Your task to perform on an android device: open app "Move to iOS" Image 0: 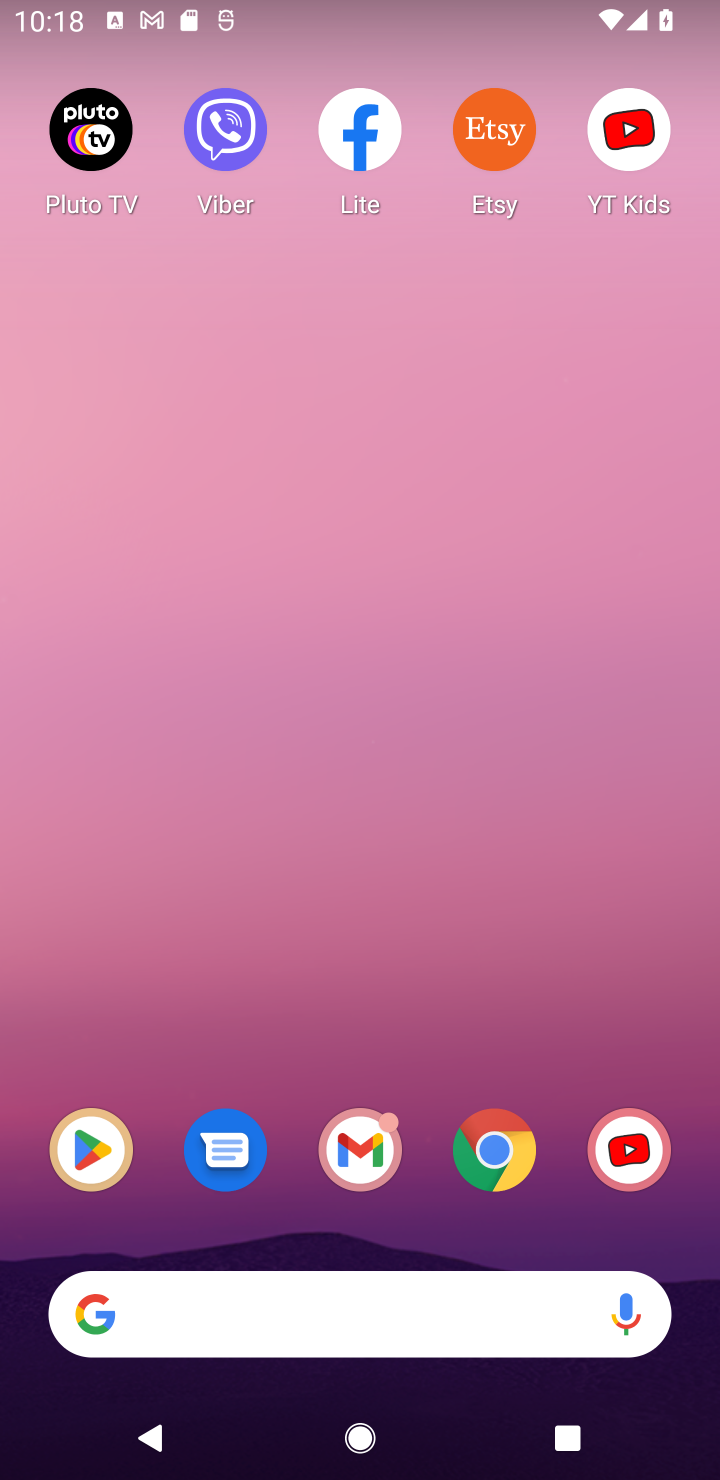
Step 0: drag from (295, 785) to (308, 265)
Your task to perform on an android device: open app "Move to iOS" Image 1: 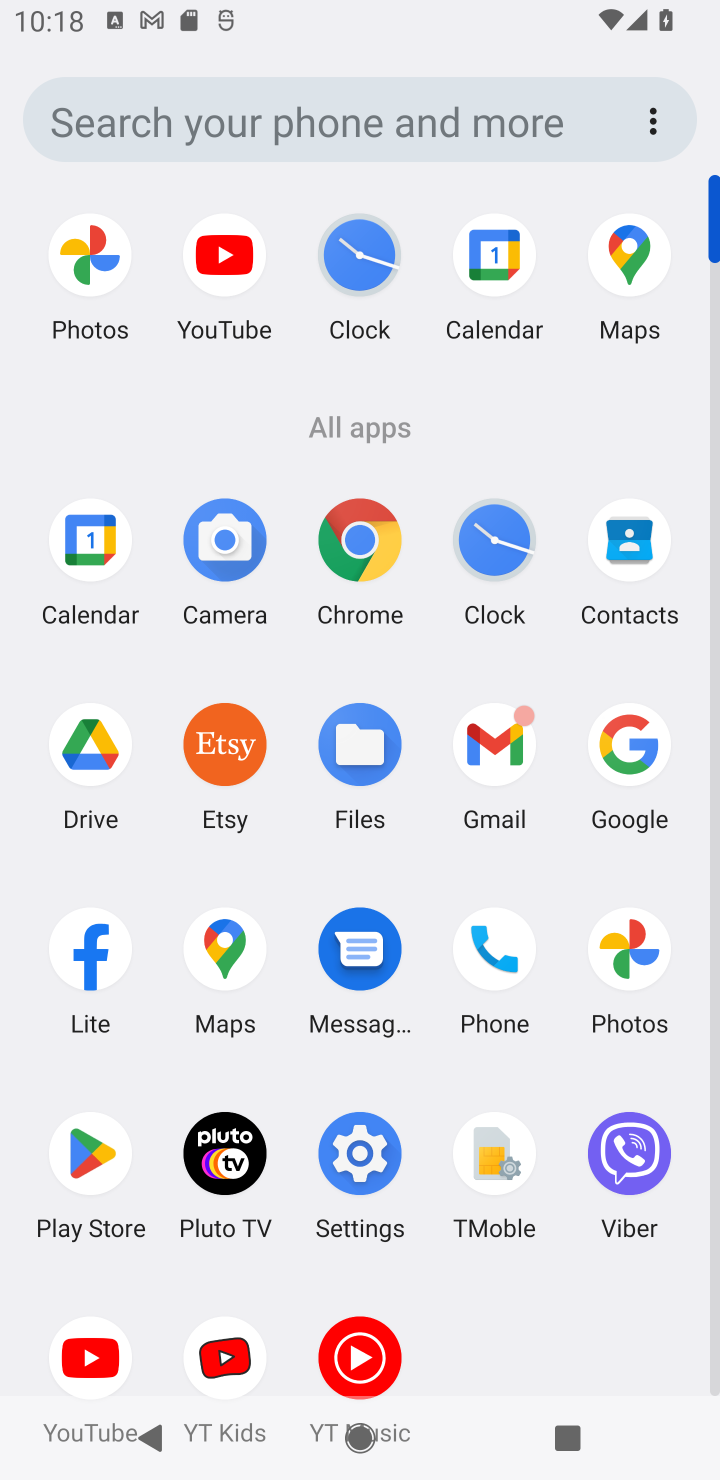
Step 1: click (99, 1164)
Your task to perform on an android device: open app "Move to iOS" Image 2: 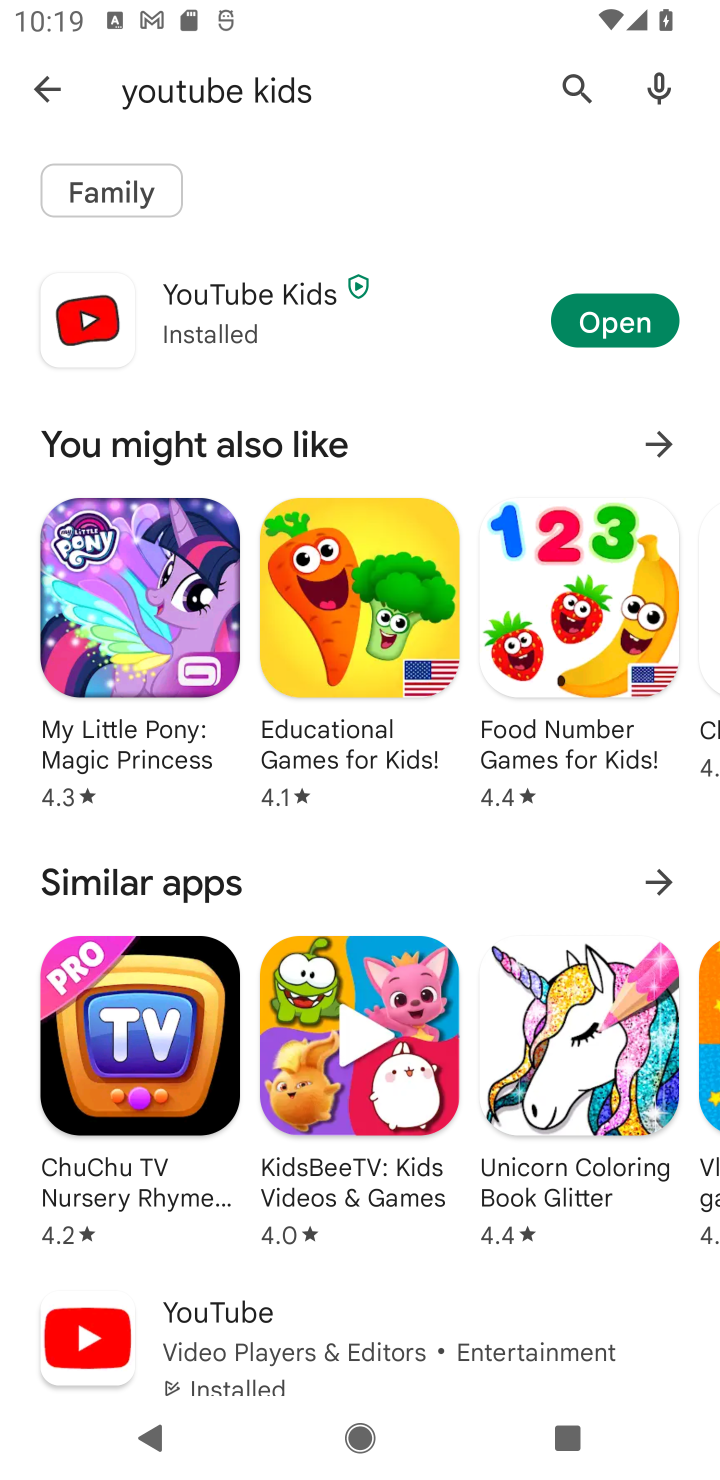
Step 2: click (595, 84)
Your task to perform on an android device: open app "Move to iOS" Image 3: 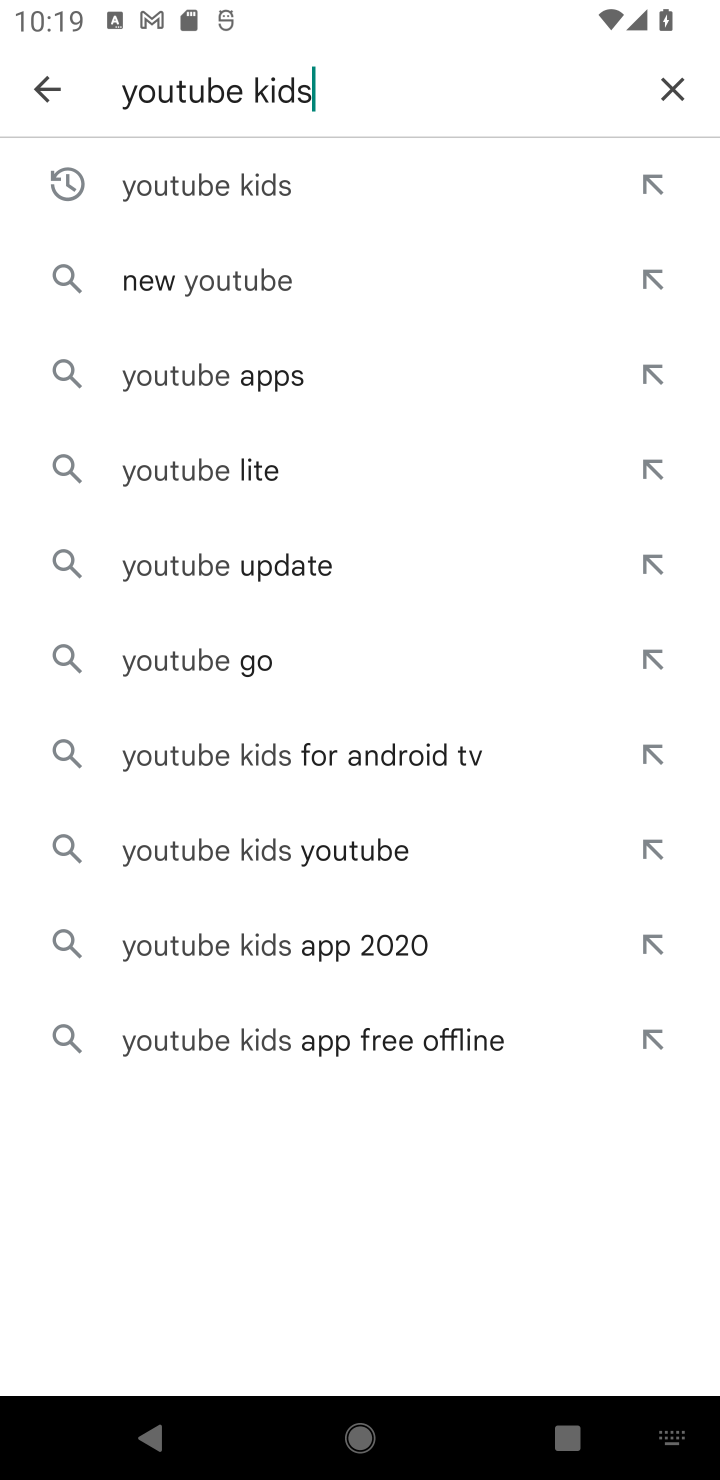
Step 3: click (656, 85)
Your task to perform on an android device: open app "Move to iOS" Image 4: 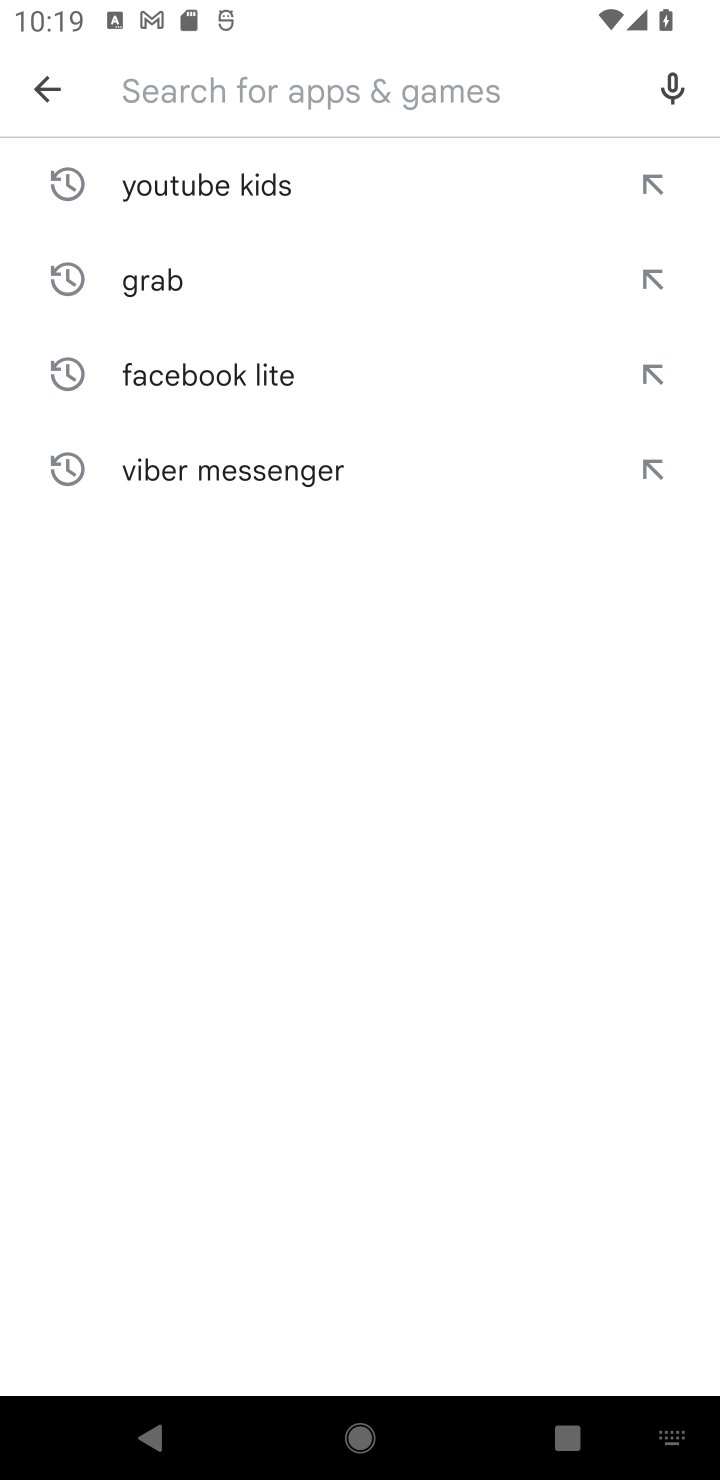
Step 4: type "Move to iOS"
Your task to perform on an android device: open app "Move to iOS" Image 5: 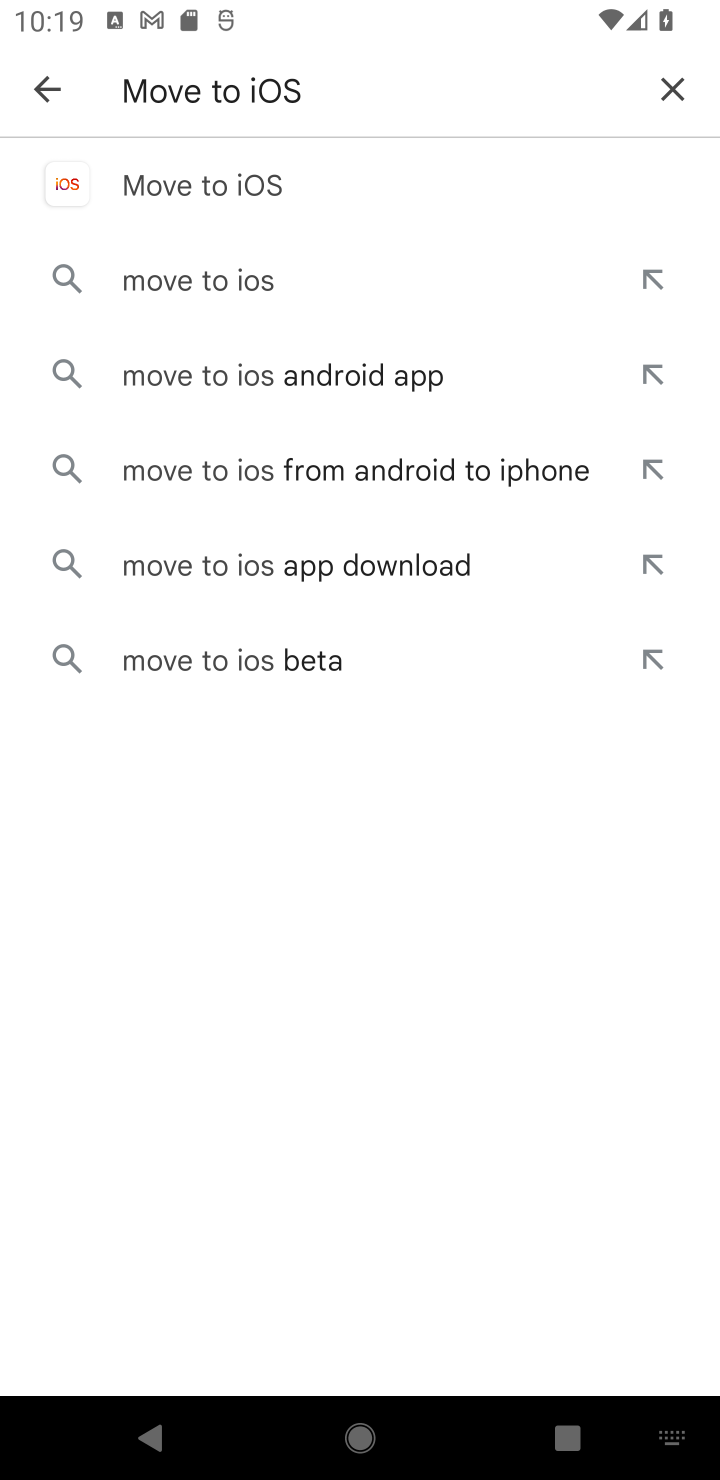
Step 5: click (222, 203)
Your task to perform on an android device: open app "Move to iOS" Image 6: 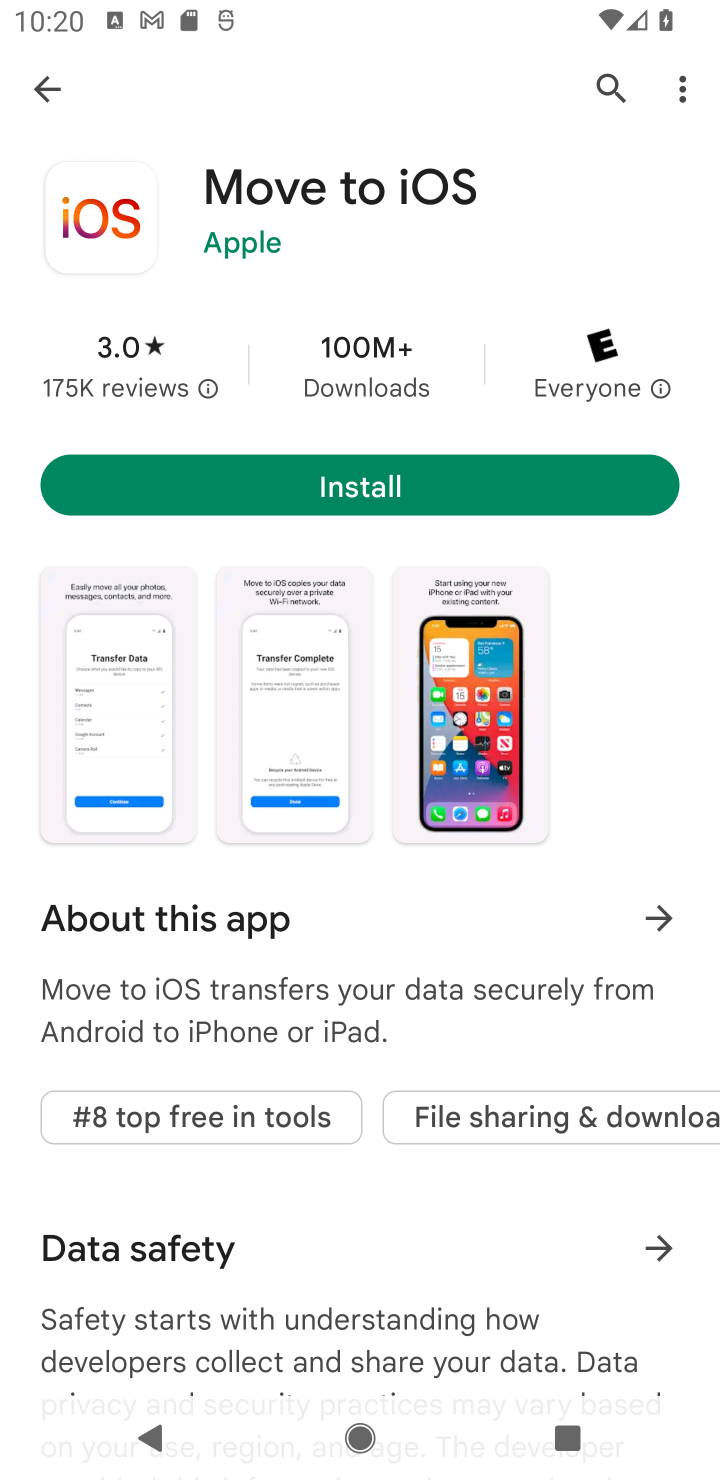
Step 6: task complete